Your task to perform on an android device: change alarm snooze length Image 0: 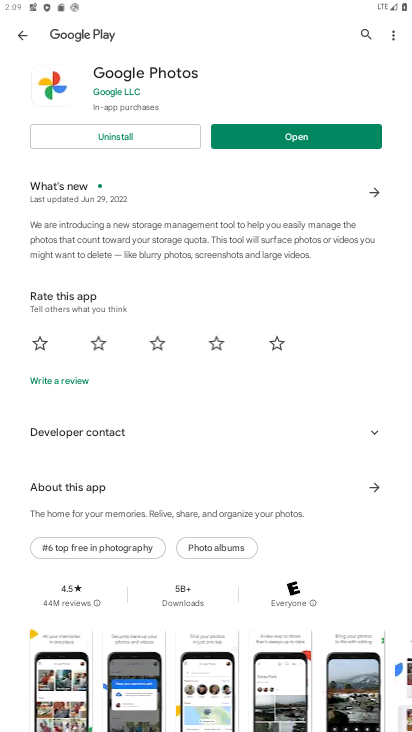
Step 0: press home button
Your task to perform on an android device: change alarm snooze length Image 1: 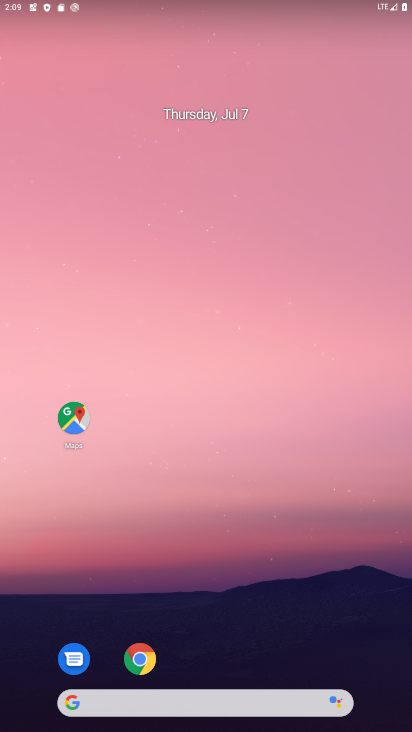
Step 1: drag from (229, 653) to (234, 199)
Your task to perform on an android device: change alarm snooze length Image 2: 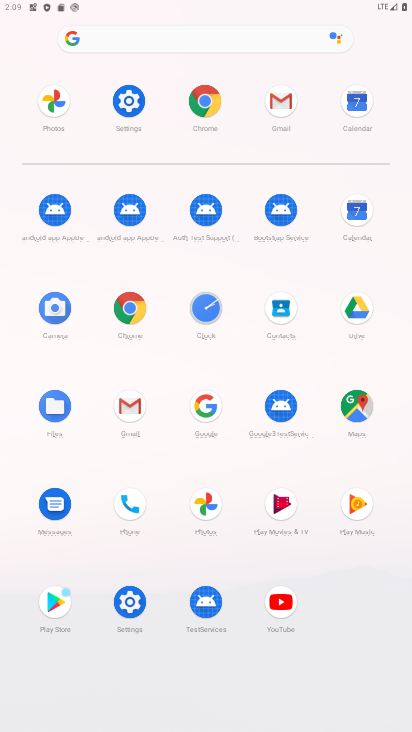
Step 2: click (207, 310)
Your task to perform on an android device: change alarm snooze length Image 3: 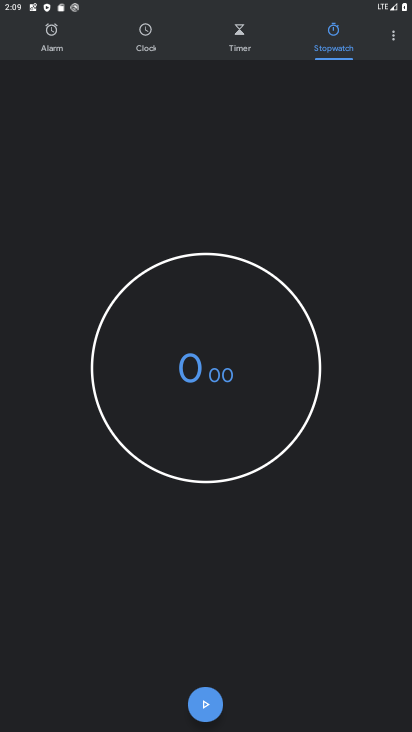
Step 3: click (393, 37)
Your task to perform on an android device: change alarm snooze length Image 4: 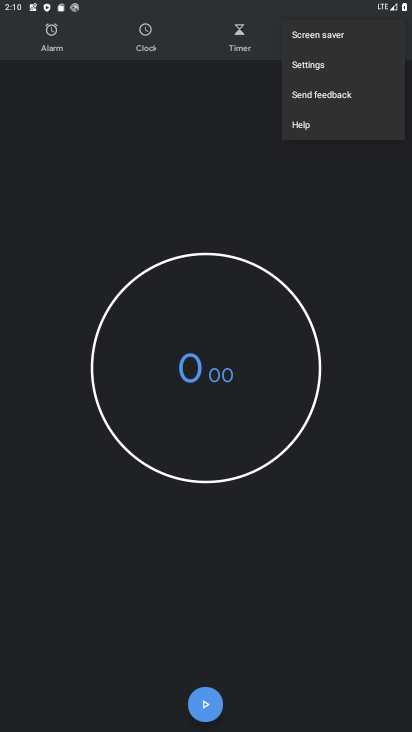
Step 4: click (325, 63)
Your task to perform on an android device: change alarm snooze length Image 5: 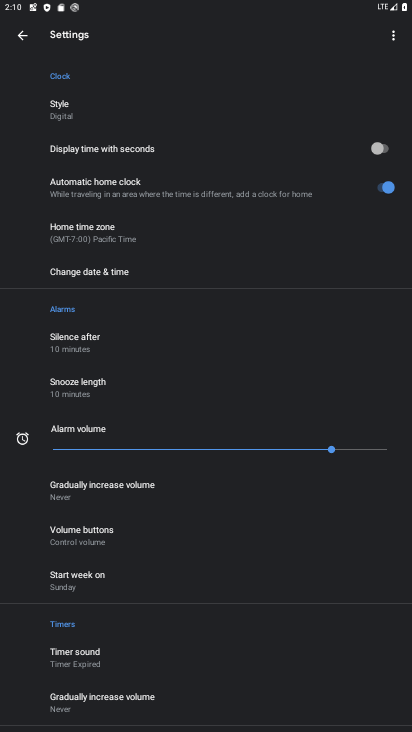
Step 5: click (108, 381)
Your task to perform on an android device: change alarm snooze length Image 6: 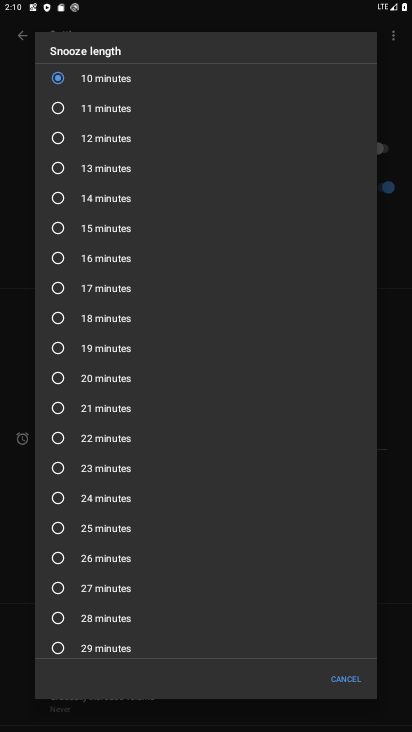
Step 6: click (63, 286)
Your task to perform on an android device: change alarm snooze length Image 7: 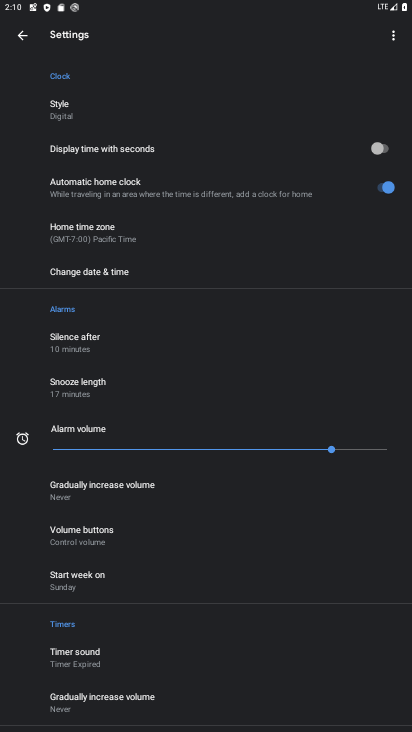
Step 7: task complete